Your task to perform on an android device: delete browsing data in the chrome app Image 0: 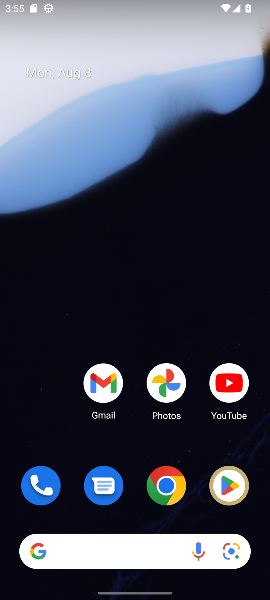
Step 0: click (135, 169)
Your task to perform on an android device: delete browsing data in the chrome app Image 1: 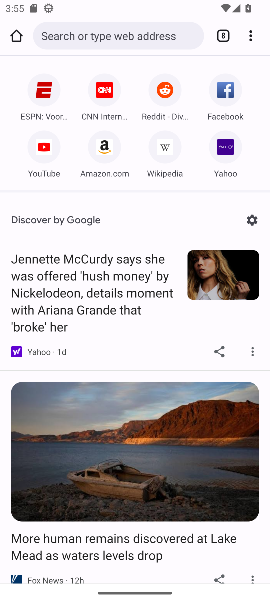
Step 1: drag from (246, 40) to (138, 147)
Your task to perform on an android device: delete browsing data in the chrome app Image 2: 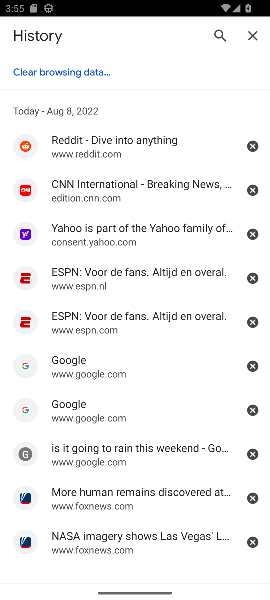
Step 2: click (140, 147)
Your task to perform on an android device: delete browsing data in the chrome app Image 3: 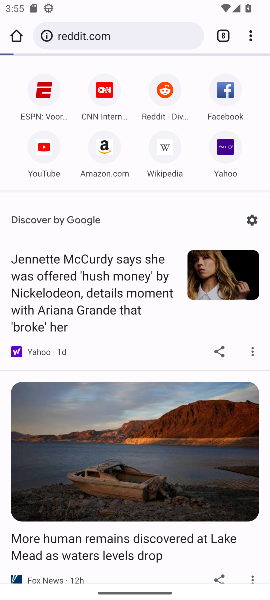
Step 3: click (50, 61)
Your task to perform on an android device: delete browsing data in the chrome app Image 4: 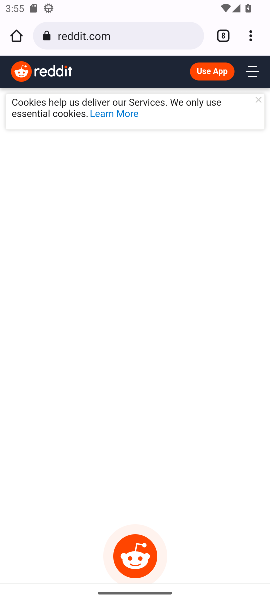
Step 4: click (246, 37)
Your task to perform on an android device: delete browsing data in the chrome app Image 5: 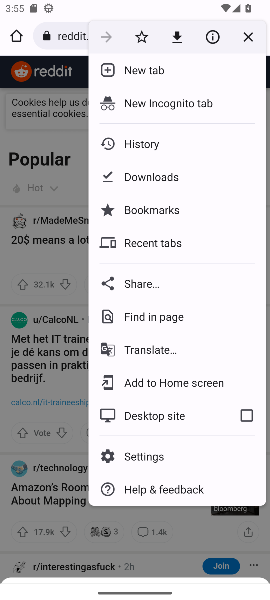
Step 5: click (130, 67)
Your task to perform on an android device: delete browsing data in the chrome app Image 6: 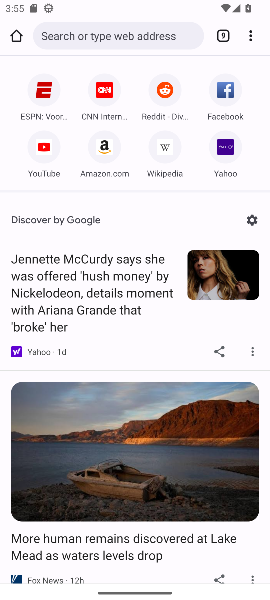
Step 6: drag from (245, 35) to (128, 150)
Your task to perform on an android device: delete browsing data in the chrome app Image 7: 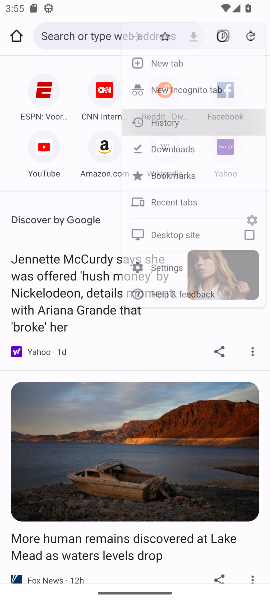
Step 7: click (128, 150)
Your task to perform on an android device: delete browsing data in the chrome app Image 8: 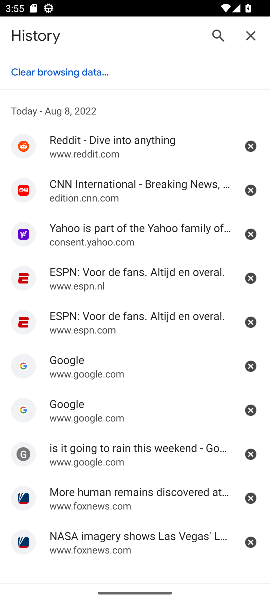
Step 8: click (49, 74)
Your task to perform on an android device: delete browsing data in the chrome app Image 9: 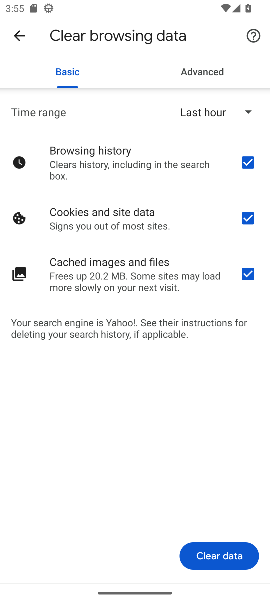
Step 9: click (227, 553)
Your task to perform on an android device: delete browsing data in the chrome app Image 10: 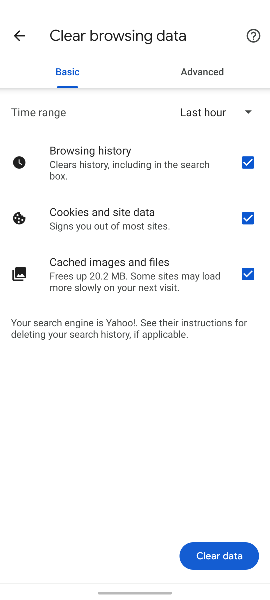
Step 10: task complete